Your task to perform on an android device: turn off priority inbox in the gmail app Image 0: 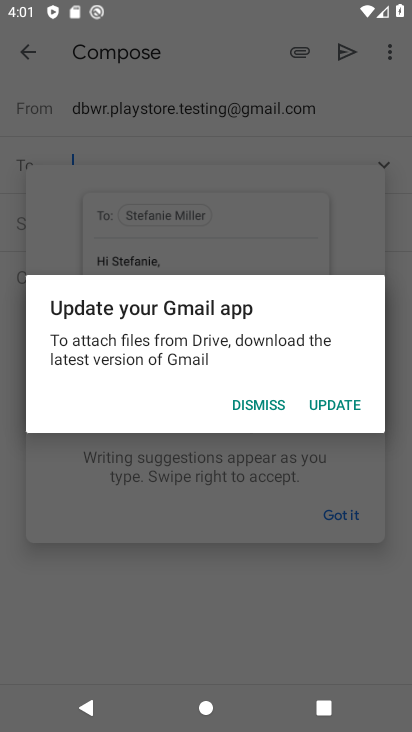
Step 0: press home button
Your task to perform on an android device: turn off priority inbox in the gmail app Image 1: 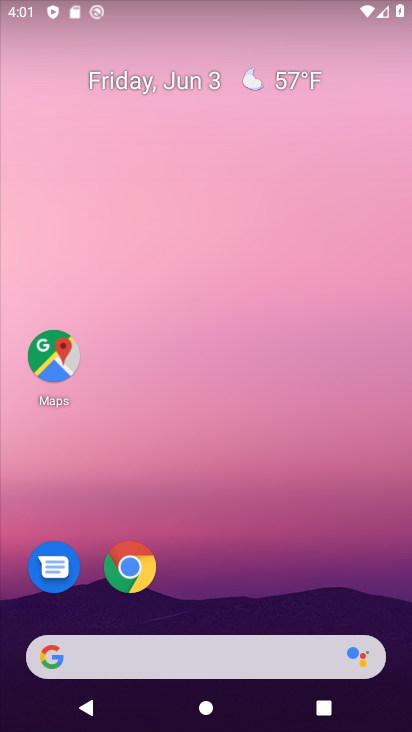
Step 1: drag from (229, 511) to (286, 128)
Your task to perform on an android device: turn off priority inbox in the gmail app Image 2: 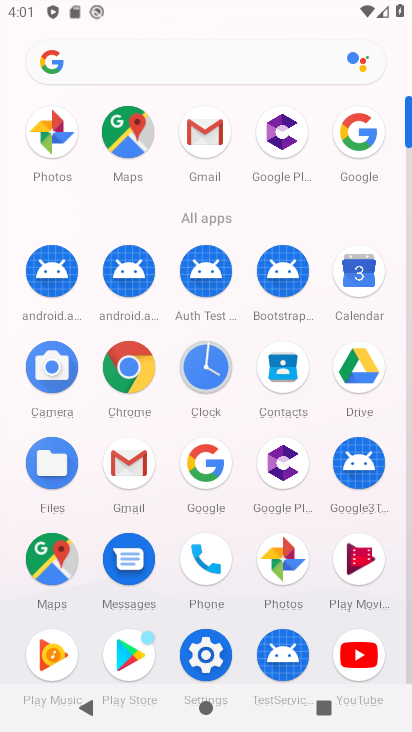
Step 2: click (204, 143)
Your task to perform on an android device: turn off priority inbox in the gmail app Image 3: 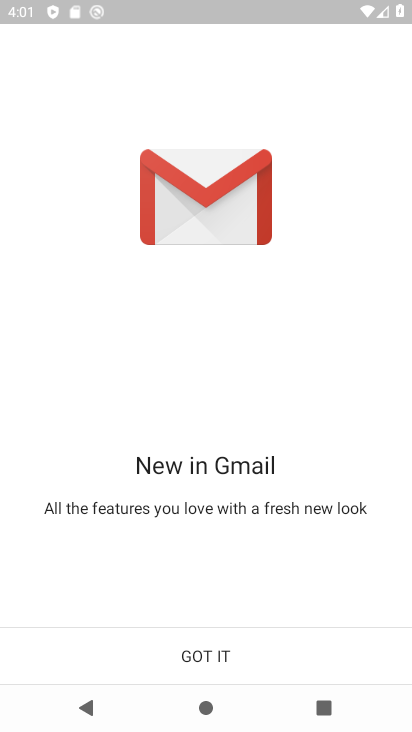
Step 3: click (273, 664)
Your task to perform on an android device: turn off priority inbox in the gmail app Image 4: 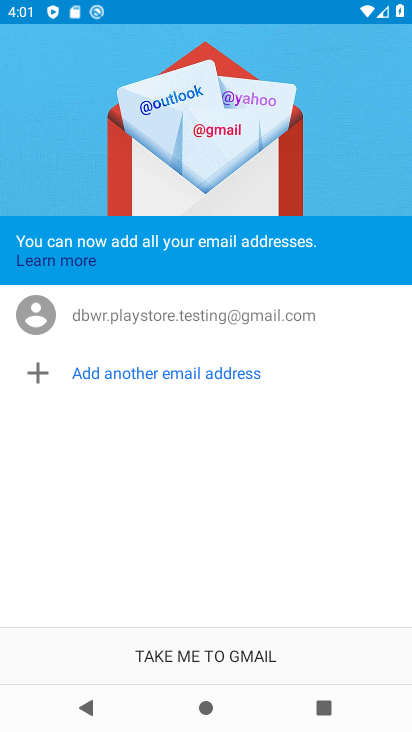
Step 4: click (273, 664)
Your task to perform on an android device: turn off priority inbox in the gmail app Image 5: 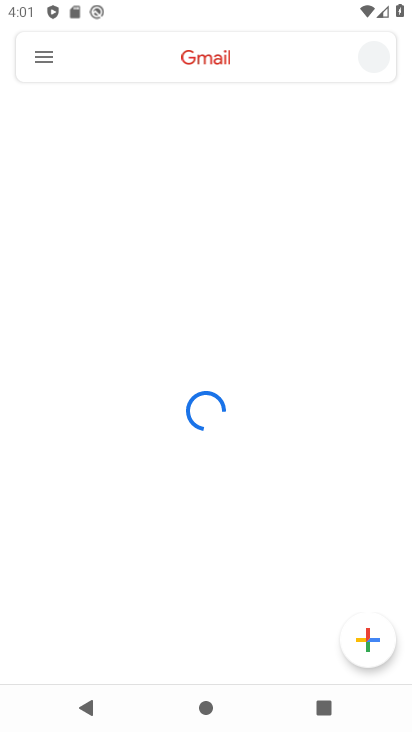
Step 5: click (29, 58)
Your task to perform on an android device: turn off priority inbox in the gmail app Image 6: 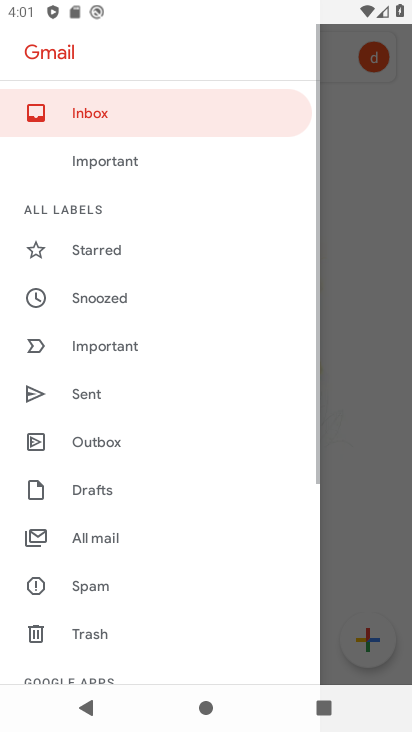
Step 6: drag from (166, 604) to (203, 199)
Your task to perform on an android device: turn off priority inbox in the gmail app Image 7: 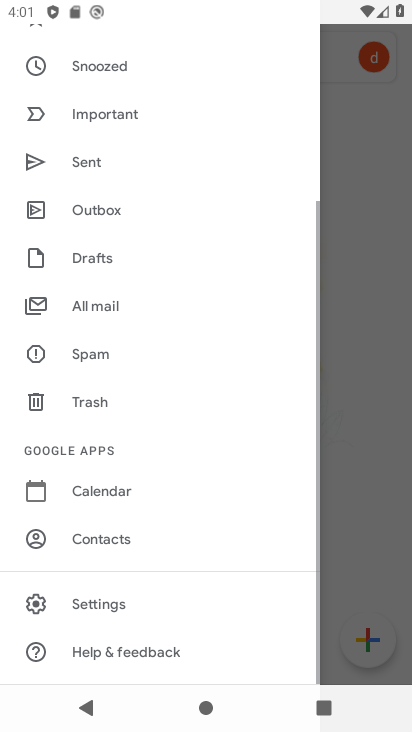
Step 7: click (133, 594)
Your task to perform on an android device: turn off priority inbox in the gmail app Image 8: 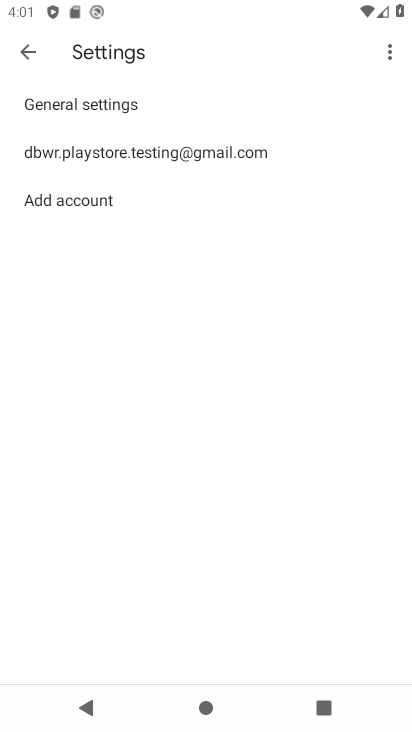
Step 8: click (230, 149)
Your task to perform on an android device: turn off priority inbox in the gmail app Image 9: 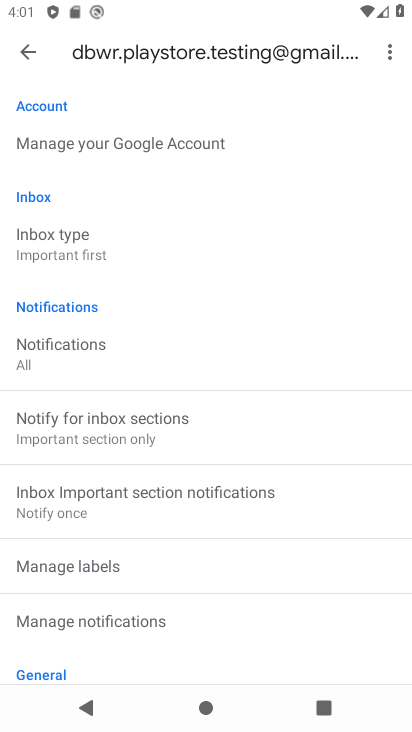
Step 9: click (185, 257)
Your task to perform on an android device: turn off priority inbox in the gmail app Image 10: 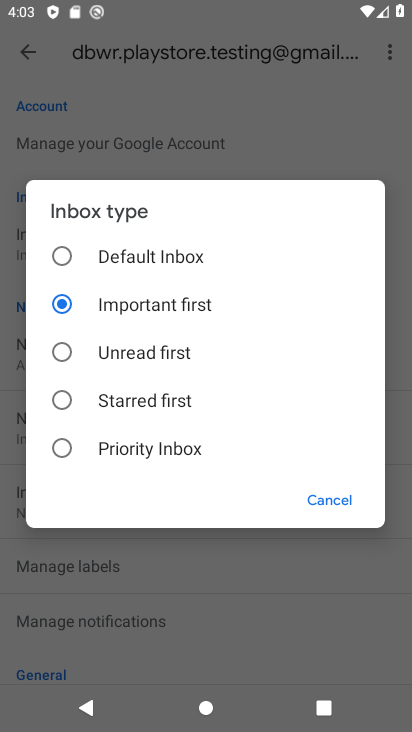
Step 10: task complete